Your task to perform on an android device: Open eBay Image 0: 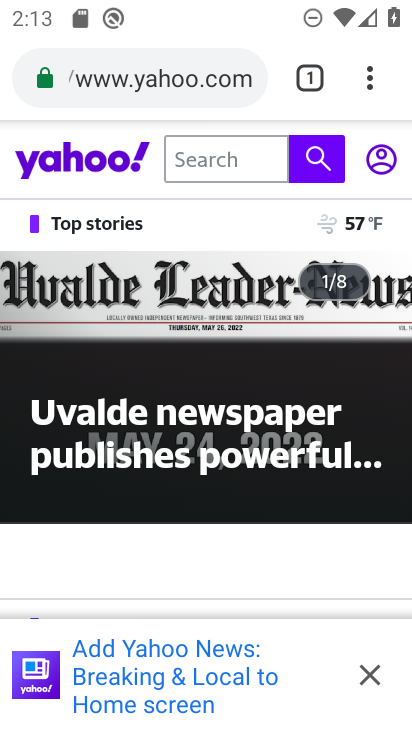
Step 0: press home button
Your task to perform on an android device: Open eBay Image 1: 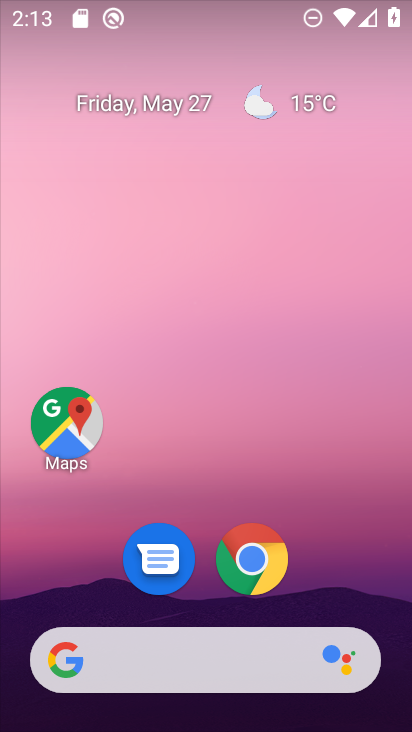
Step 1: drag from (230, 635) to (249, 61)
Your task to perform on an android device: Open eBay Image 2: 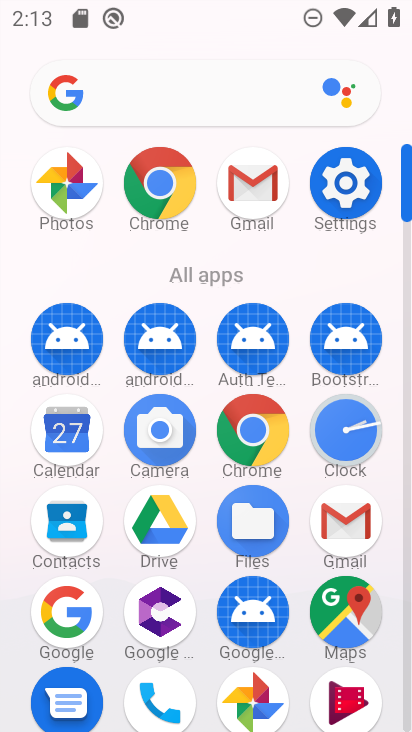
Step 2: click (238, 422)
Your task to perform on an android device: Open eBay Image 3: 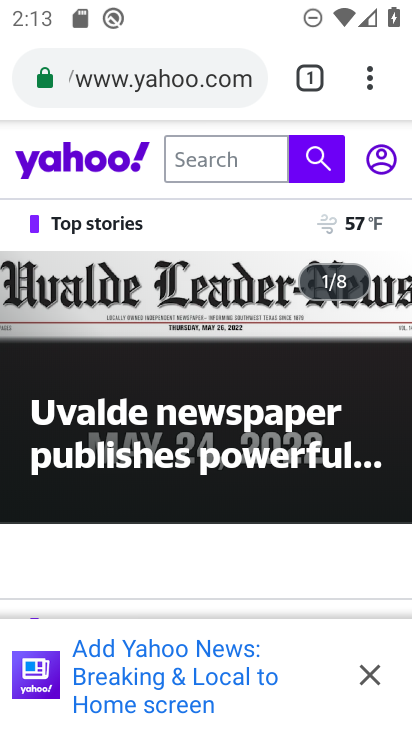
Step 3: drag from (368, 78) to (255, 131)
Your task to perform on an android device: Open eBay Image 4: 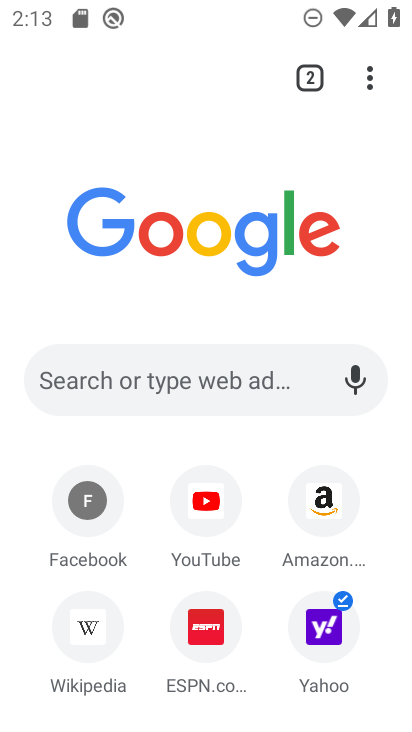
Step 4: click (227, 367)
Your task to perform on an android device: Open eBay Image 5: 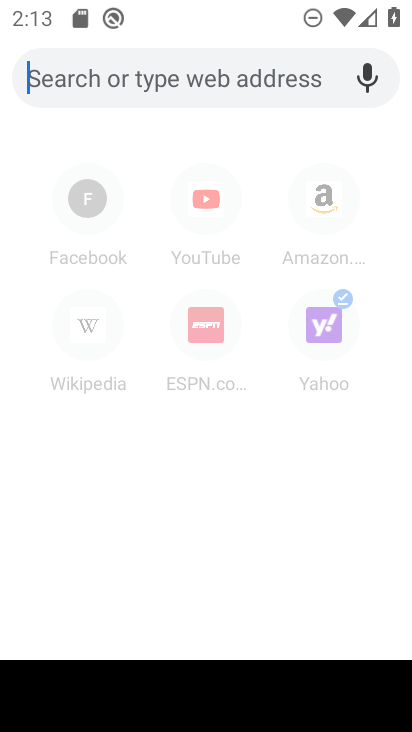
Step 5: type "ebay"
Your task to perform on an android device: Open eBay Image 6: 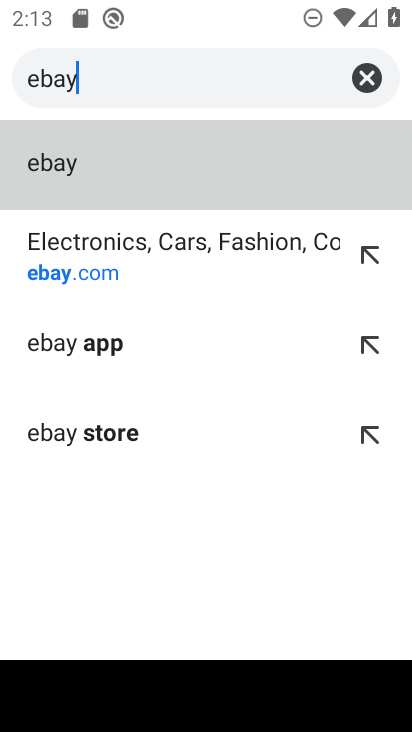
Step 6: click (259, 254)
Your task to perform on an android device: Open eBay Image 7: 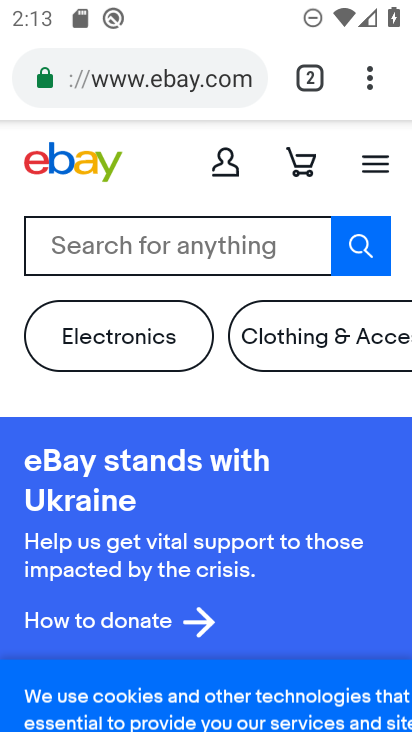
Step 7: task complete